Your task to perform on an android device: Open Yahoo.com Image 0: 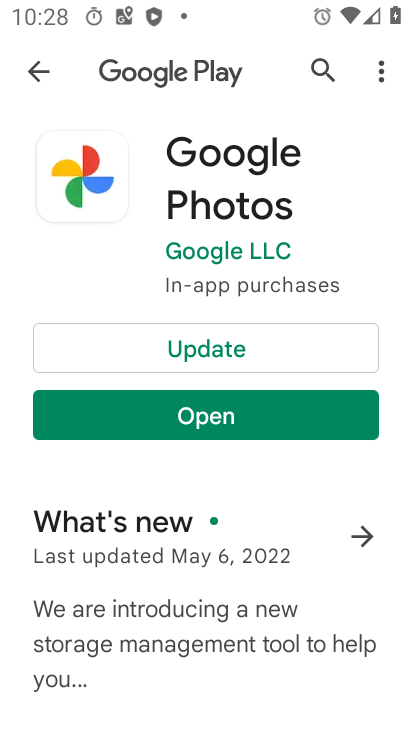
Step 0: press home button
Your task to perform on an android device: Open Yahoo.com Image 1: 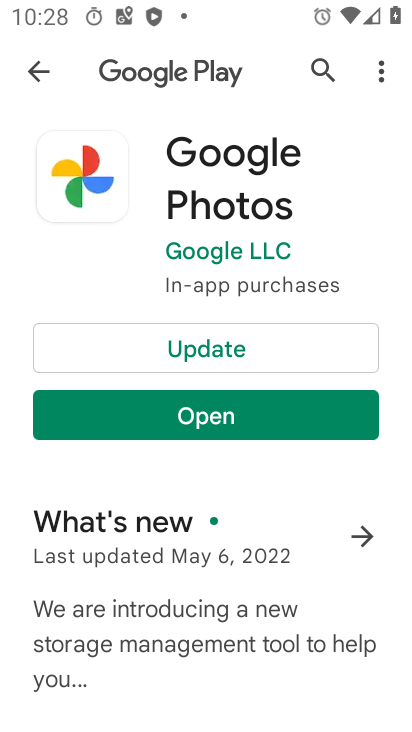
Step 1: press home button
Your task to perform on an android device: Open Yahoo.com Image 2: 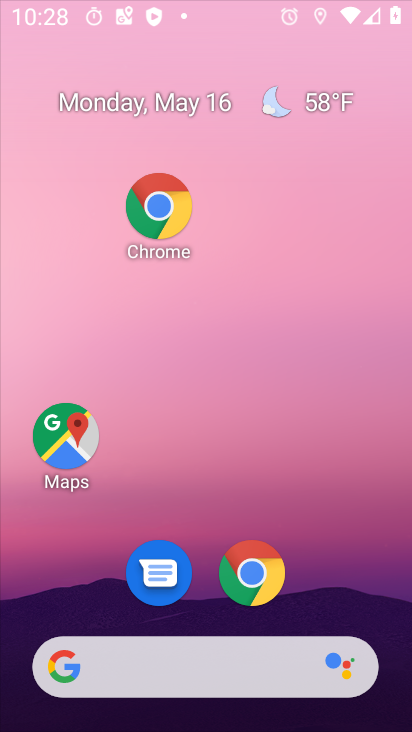
Step 2: press home button
Your task to perform on an android device: Open Yahoo.com Image 3: 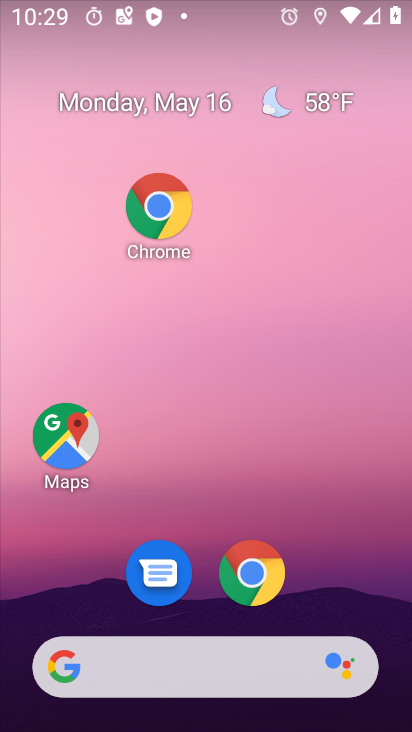
Step 3: press home button
Your task to perform on an android device: Open Yahoo.com Image 4: 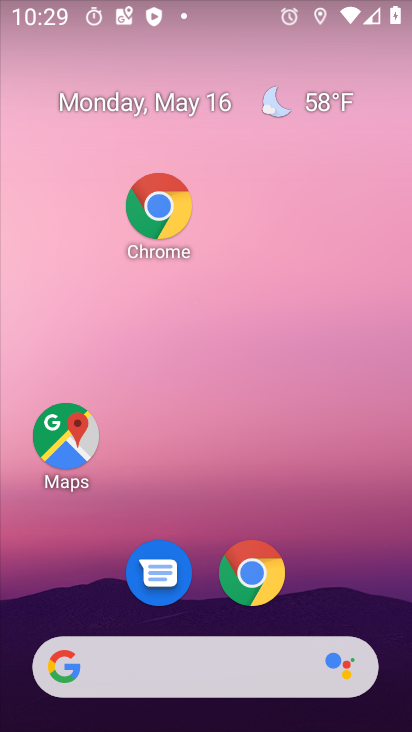
Step 4: drag from (310, 676) to (175, 0)
Your task to perform on an android device: Open Yahoo.com Image 5: 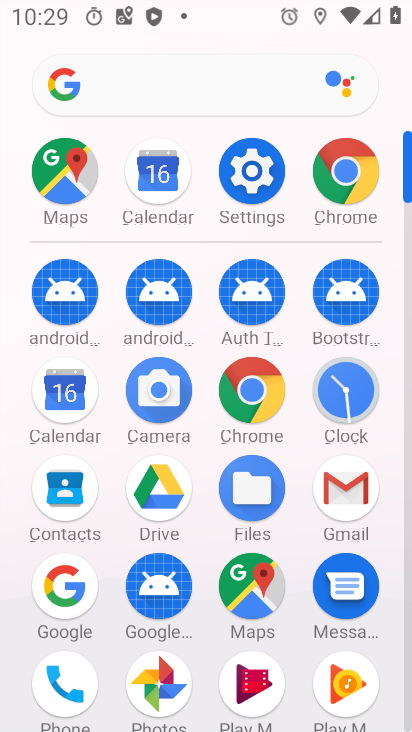
Step 5: click (340, 170)
Your task to perform on an android device: Open Yahoo.com Image 6: 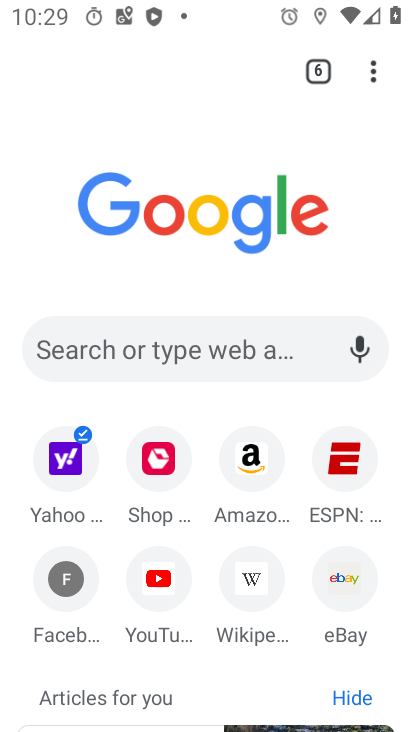
Step 6: click (56, 463)
Your task to perform on an android device: Open Yahoo.com Image 7: 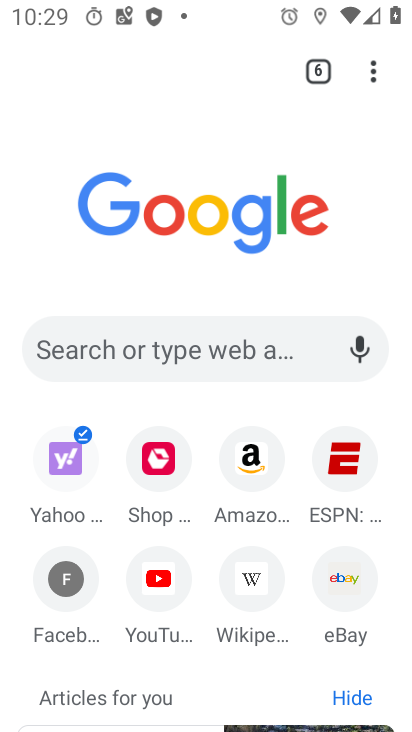
Step 7: click (55, 462)
Your task to perform on an android device: Open Yahoo.com Image 8: 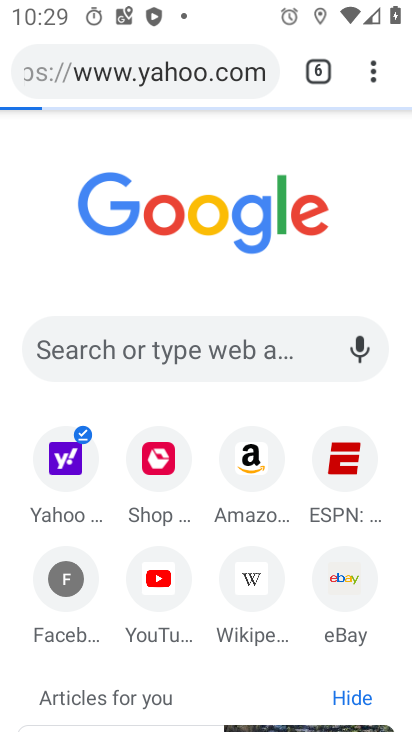
Step 8: click (60, 457)
Your task to perform on an android device: Open Yahoo.com Image 9: 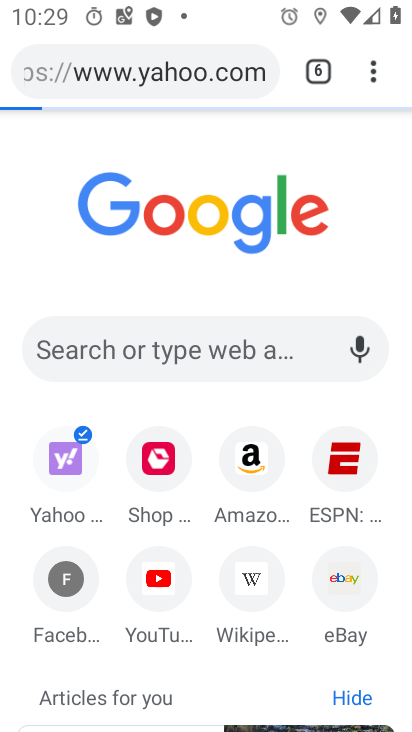
Step 9: click (60, 457)
Your task to perform on an android device: Open Yahoo.com Image 10: 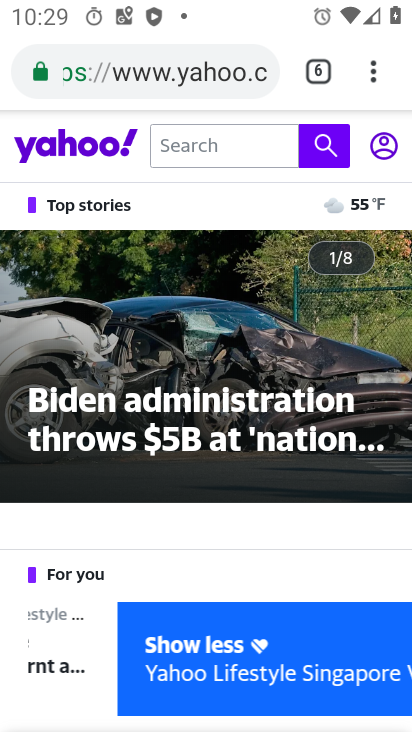
Step 10: task complete